Your task to perform on an android device: Open Reddit.com Image 0: 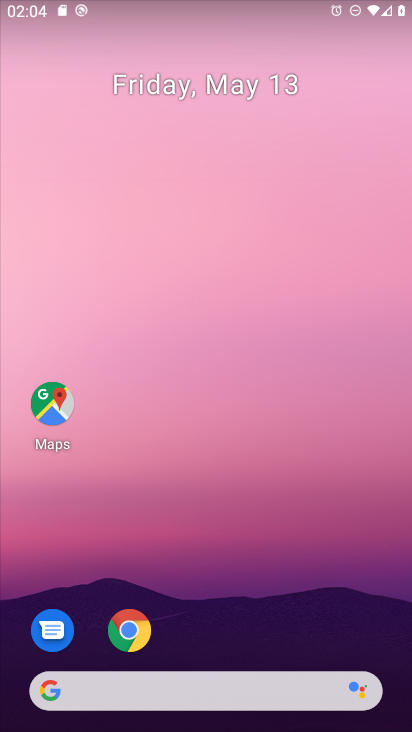
Step 0: drag from (315, 708) to (222, 288)
Your task to perform on an android device: Open Reddit.com Image 1: 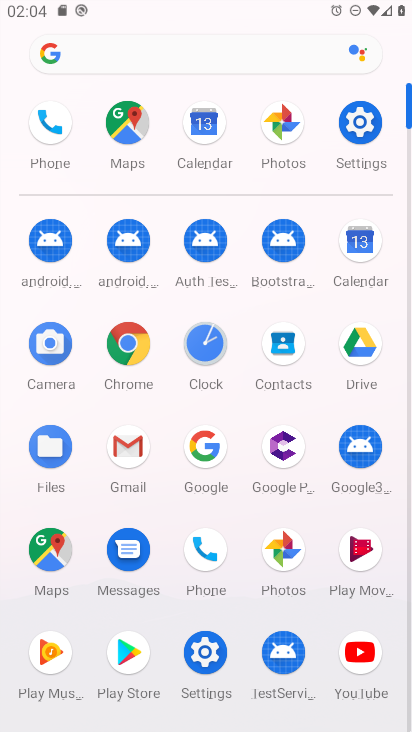
Step 1: click (131, 360)
Your task to perform on an android device: Open Reddit.com Image 2: 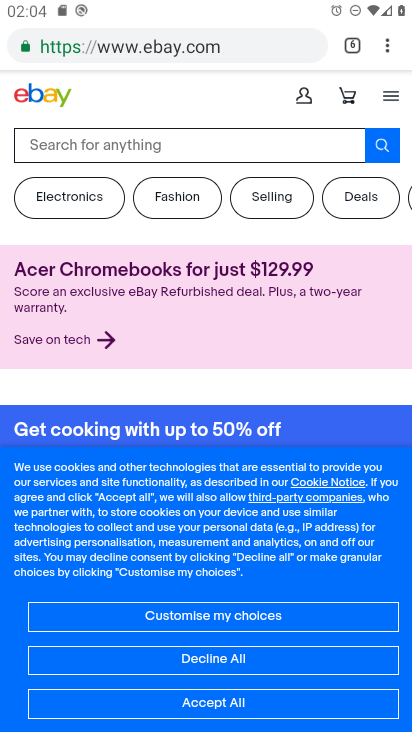
Step 2: click (347, 47)
Your task to perform on an android device: Open Reddit.com Image 3: 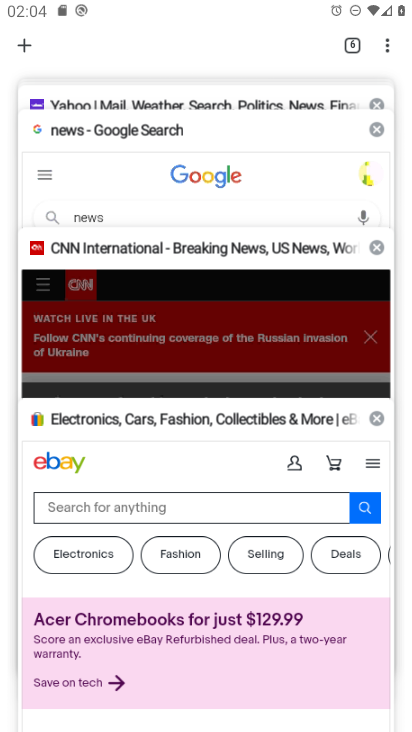
Step 3: click (15, 48)
Your task to perform on an android device: Open Reddit.com Image 4: 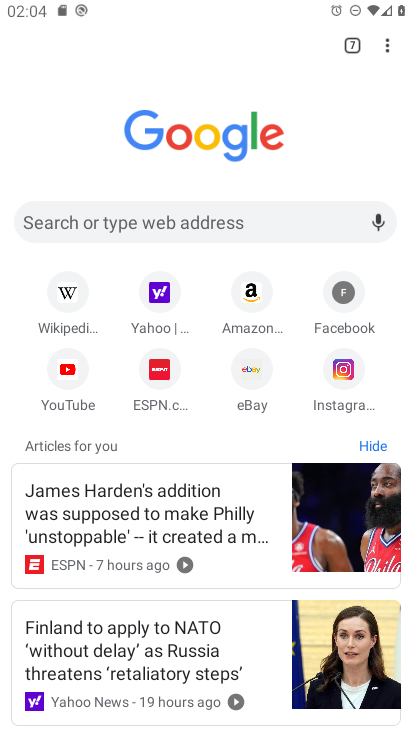
Step 4: click (154, 222)
Your task to perform on an android device: Open Reddit.com Image 5: 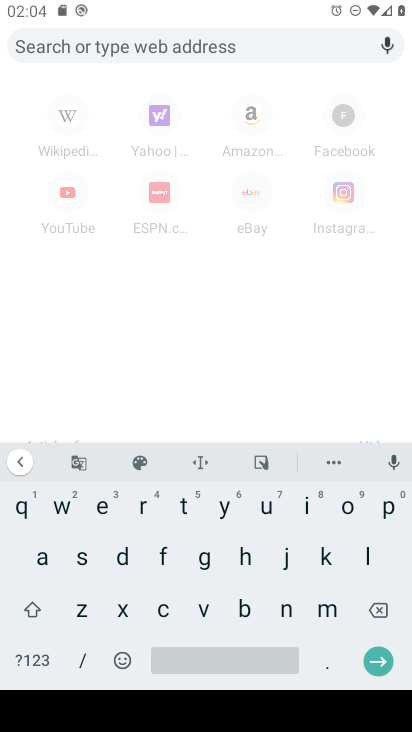
Step 5: click (128, 506)
Your task to perform on an android device: Open Reddit.com Image 6: 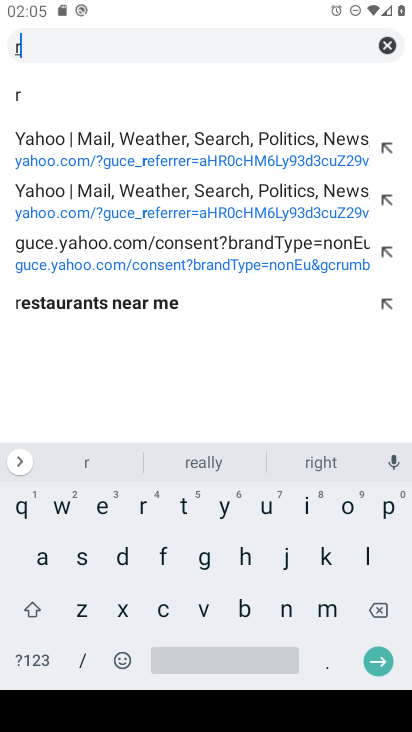
Step 6: click (105, 506)
Your task to perform on an android device: Open Reddit.com Image 7: 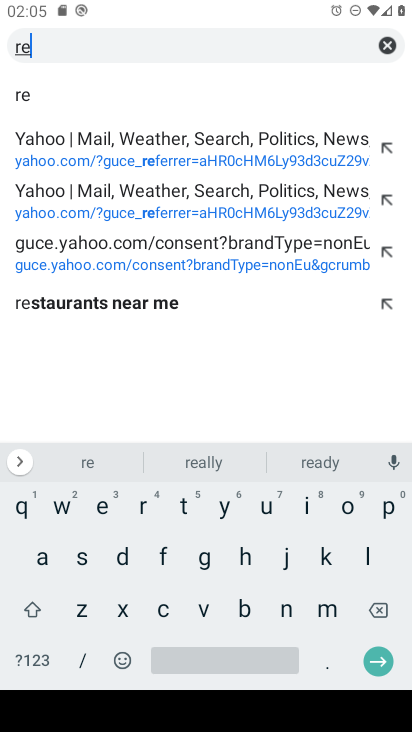
Step 7: click (123, 557)
Your task to perform on an android device: Open Reddit.com Image 8: 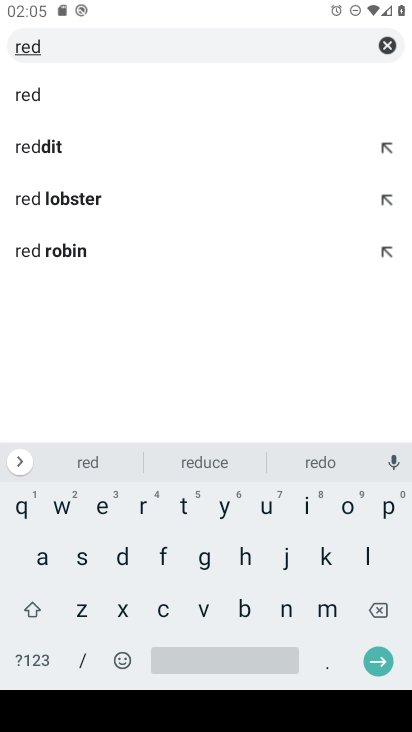
Step 8: click (68, 152)
Your task to perform on an android device: Open Reddit.com Image 9: 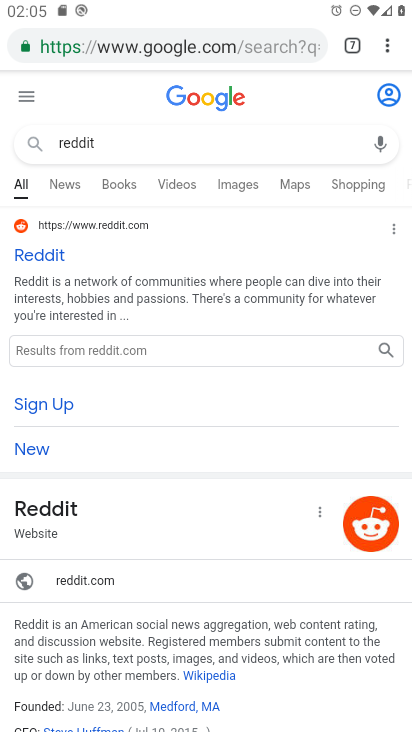
Step 9: click (25, 248)
Your task to perform on an android device: Open Reddit.com Image 10: 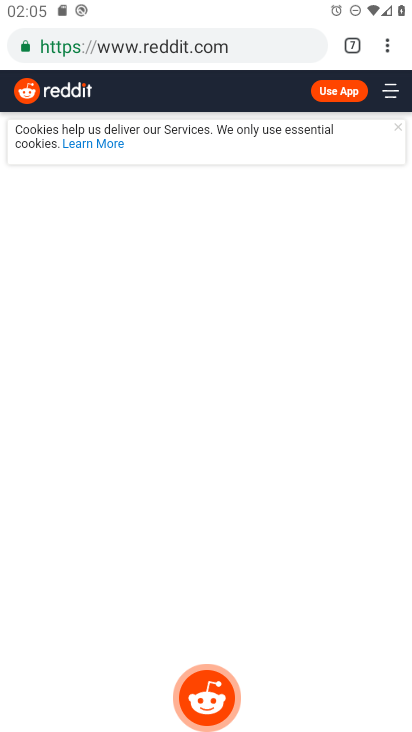
Step 10: task complete